Your task to perform on an android device: Go to notification settings Image 0: 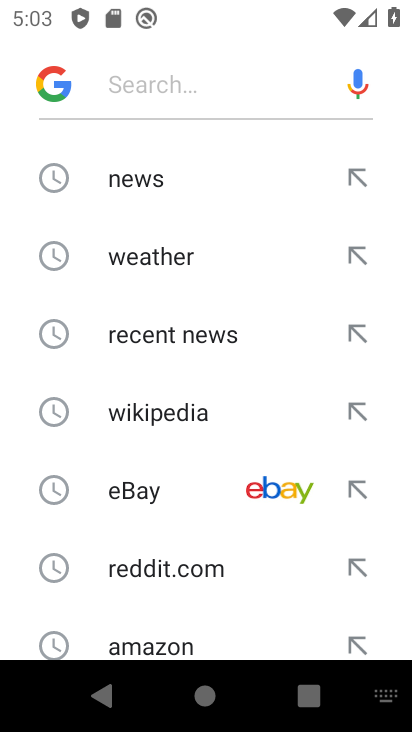
Step 0: press home button
Your task to perform on an android device: Go to notification settings Image 1: 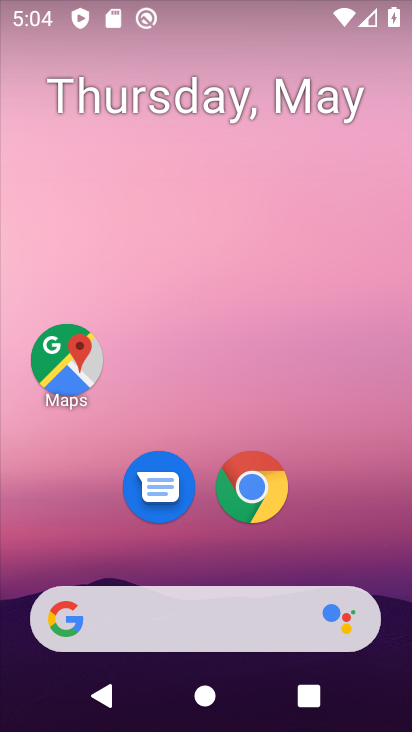
Step 1: drag from (321, 504) to (274, 86)
Your task to perform on an android device: Go to notification settings Image 2: 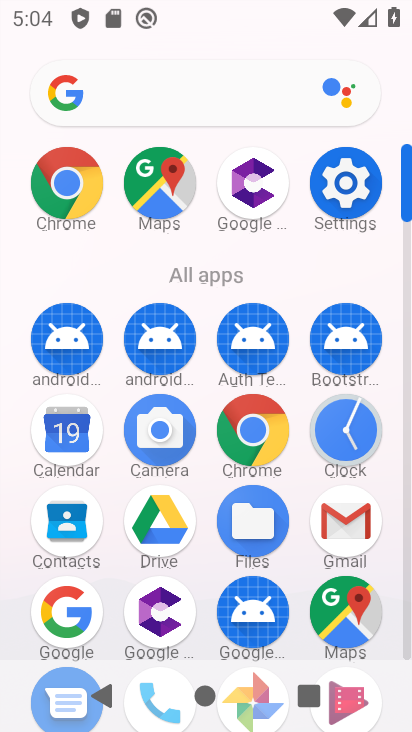
Step 2: click (342, 194)
Your task to perform on an android device: Go to notification settings Image 3: 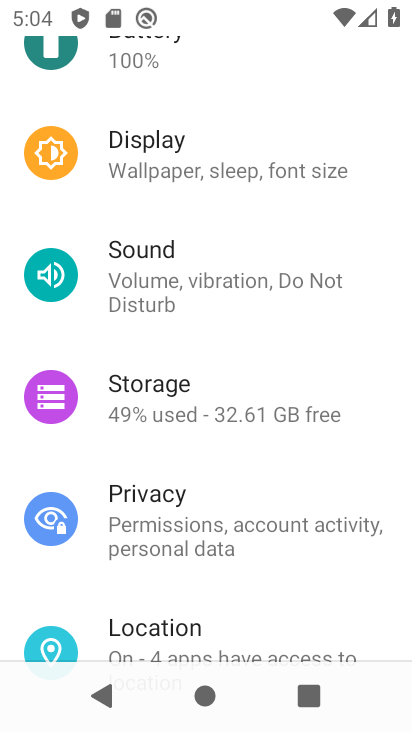
Step 3: drag from (282, 244) to (315, 637)
Your task to perform on an android device: Go to notification settings Image 4: 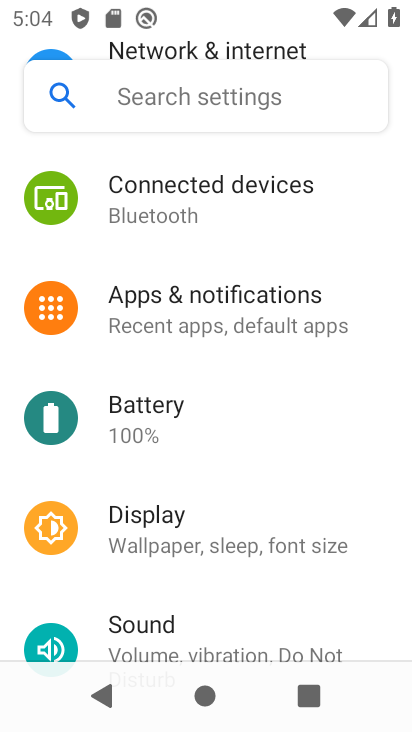
Step 4: click (246, 308)
Your task to perform on an android device: Go to notification settings Image 5: 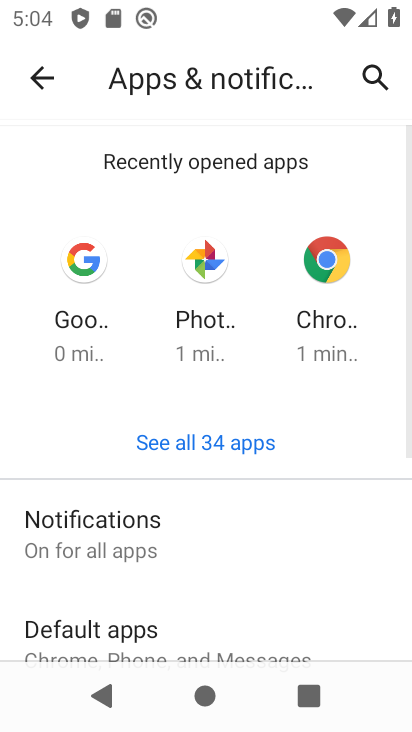
Step 5: click (155, 523)
Your task to perform on an android device: Go to notification settings Image 6: 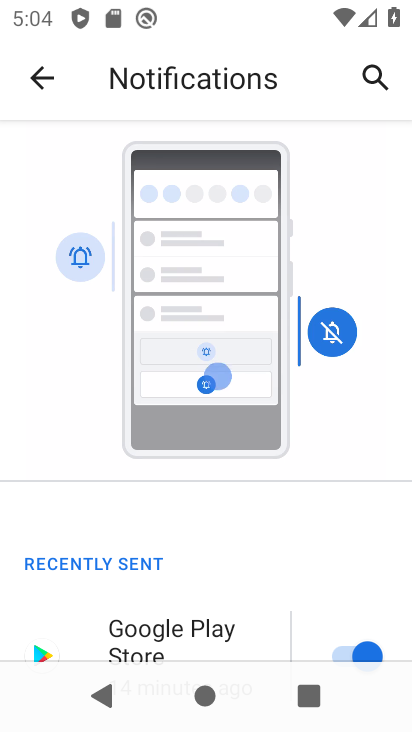
Step 6: task complete